Your task to perform on an android device: Play the last video I watched on Youtube Image 0: 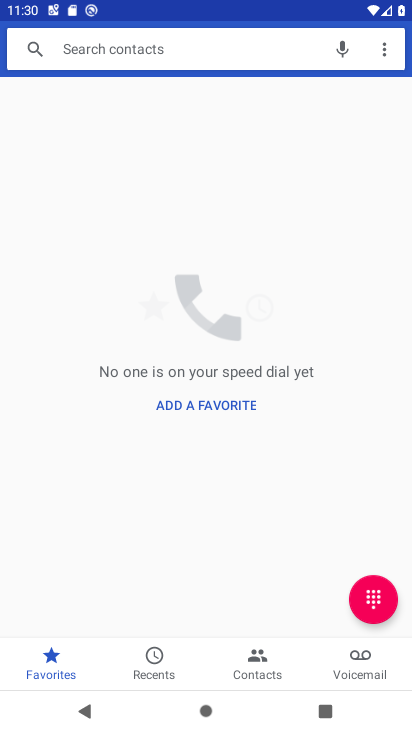
Step 0: press home button
Your task to perform on an android device: Play the last video I watched on Youtube Image 1: 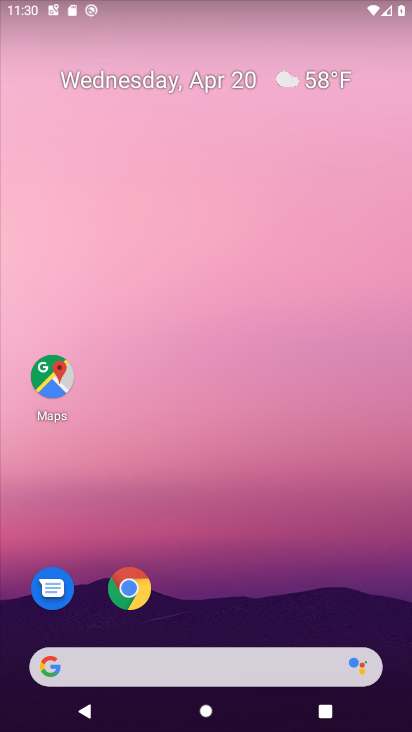
Step 1: drag from (320, 376) to (267, 30)
Your task to perform on an android device: Play the last video I watched on Youtube Image 2: 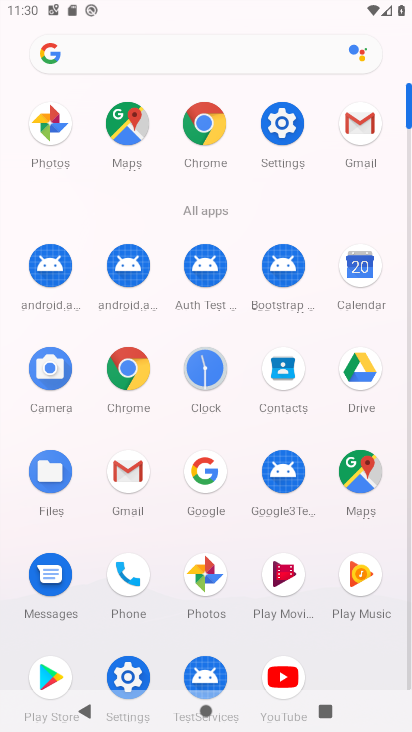
Step 2: click (278, 682)
Your task to perform on an android device: Play the last video I watched on Youtube Image 3: 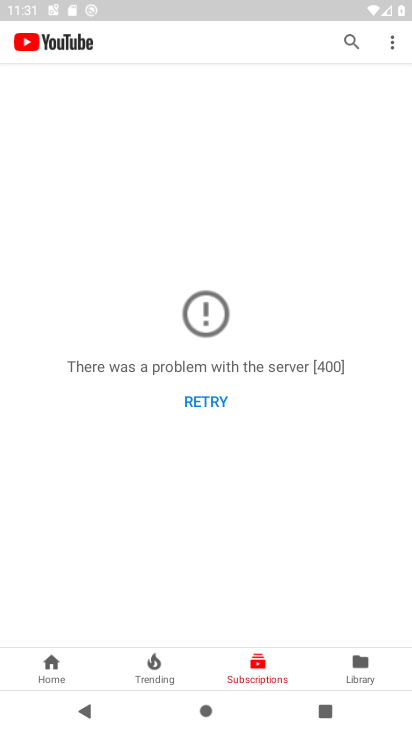
Step 3: click (358, 666)
Your task to perform on an android device: Play the last video I watched on Youtube Image 4: 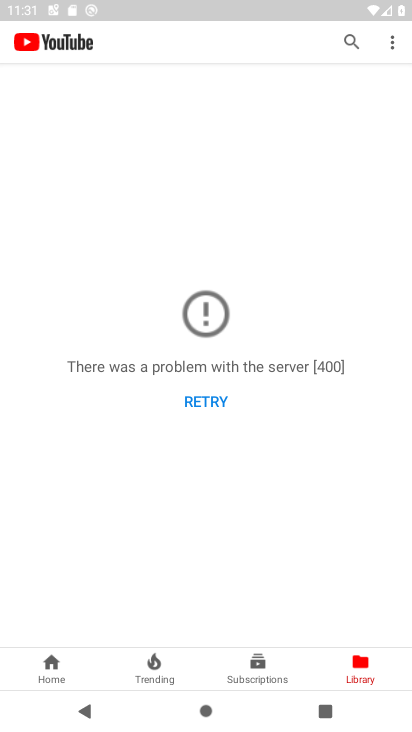
Step 4: task complete